Your task to perform on an android device: Go to settings Image 0: 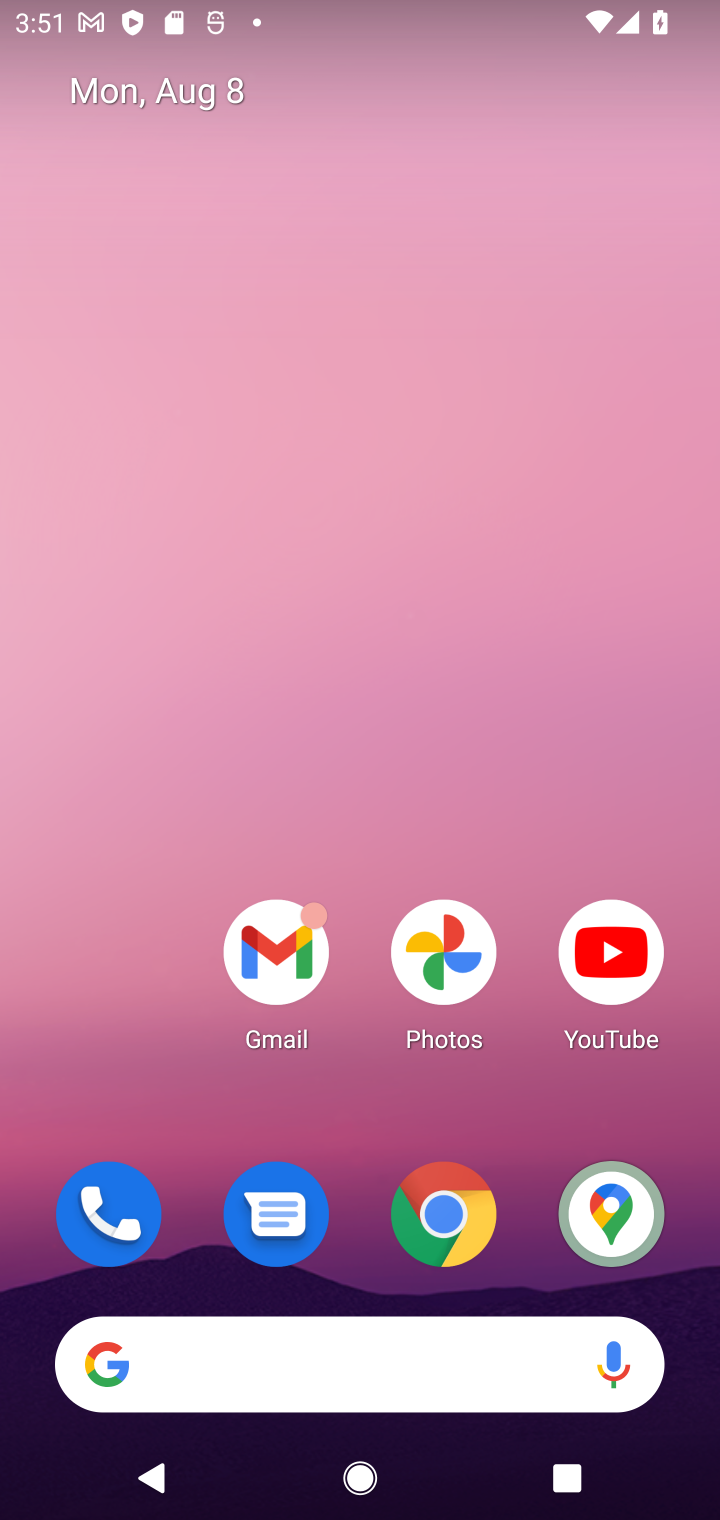
Step 0: drag from (341, 1099) to (341, 124)
Your task to perform on an android device: Go to settings Image 1: 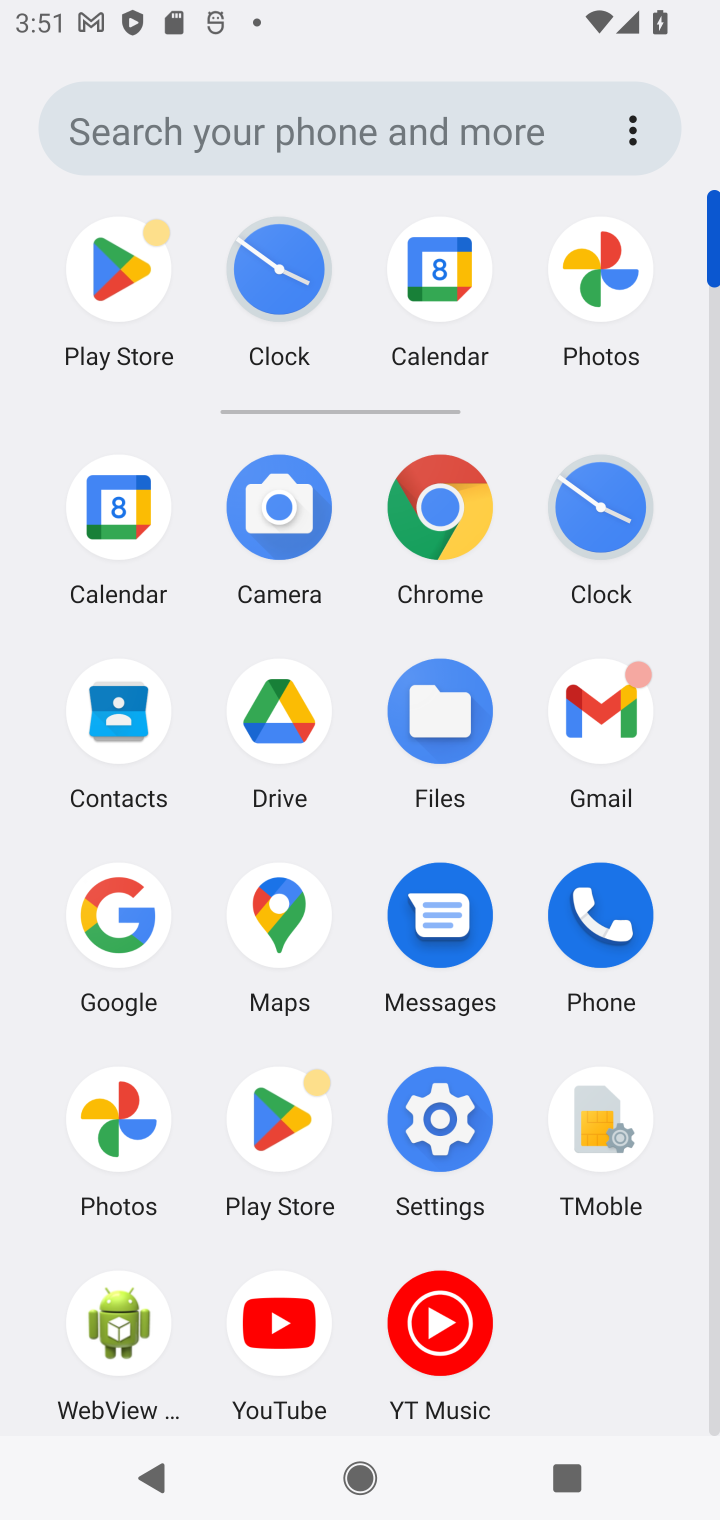
Step 1: click (436, 1117)
Your task to perform on an android device: Go to settings Image 2: 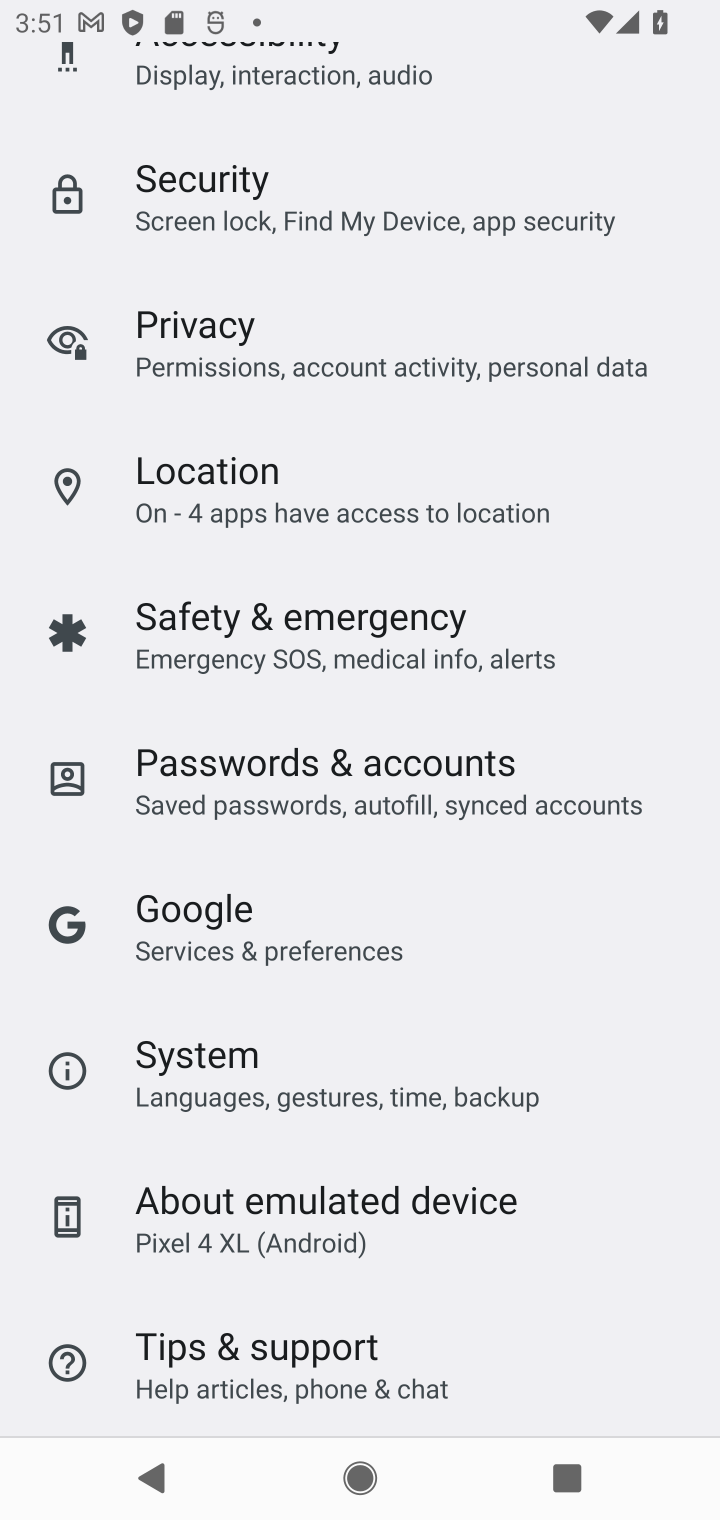
Step 2: task complete